Your task to perform on an android device: Go to settings Image 0: 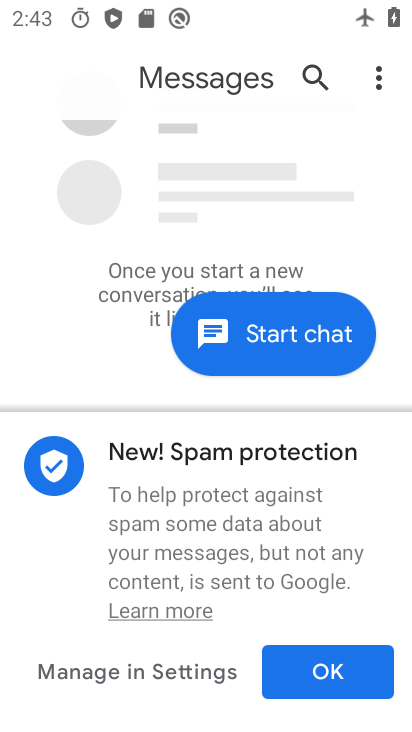
Step 0: press home button
Your task to perform on an android device: Go to settings Image 1: 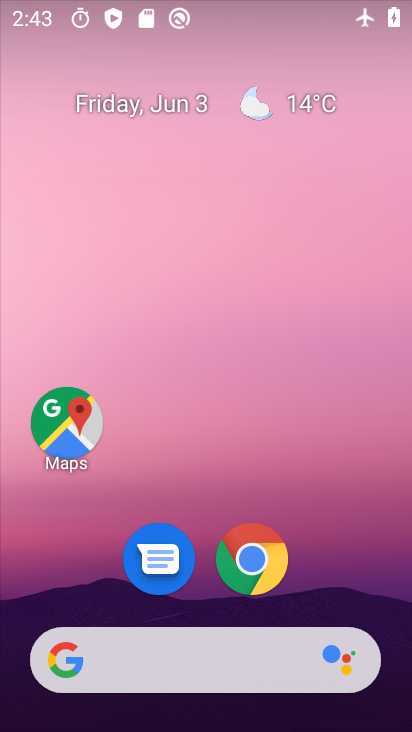
Step 1: drag from (203, 620) to (219, 30)
Your task to perform on an android device: Go to settings Image 2: 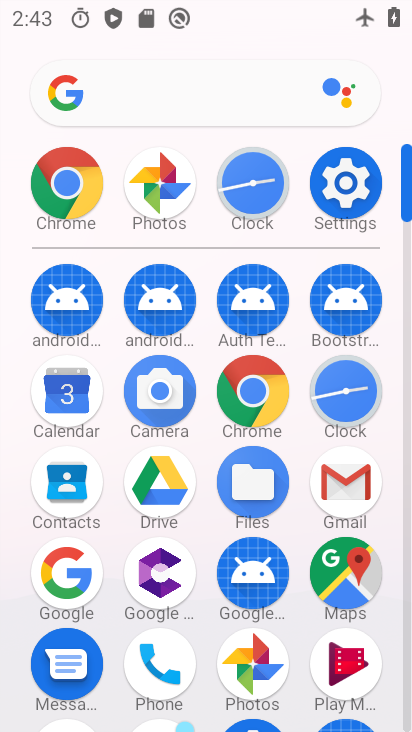
Step 2: click (356, 178)
Your task to perform on an android device: Go to settings Image 3: 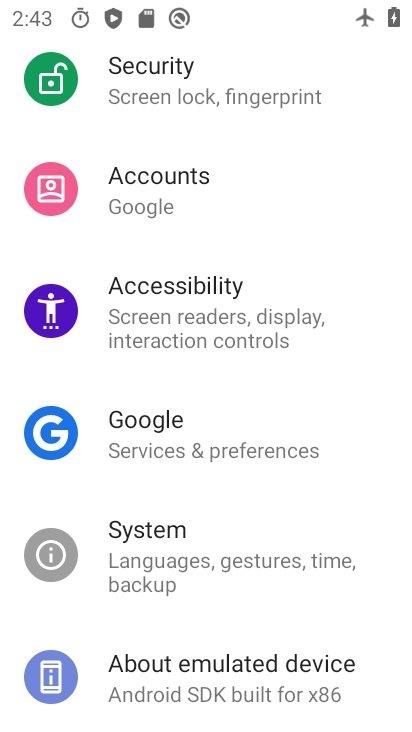
Step 3: task complete